Your task to perform on an android device: Add razer huntsman to the cart on costco Image 0: 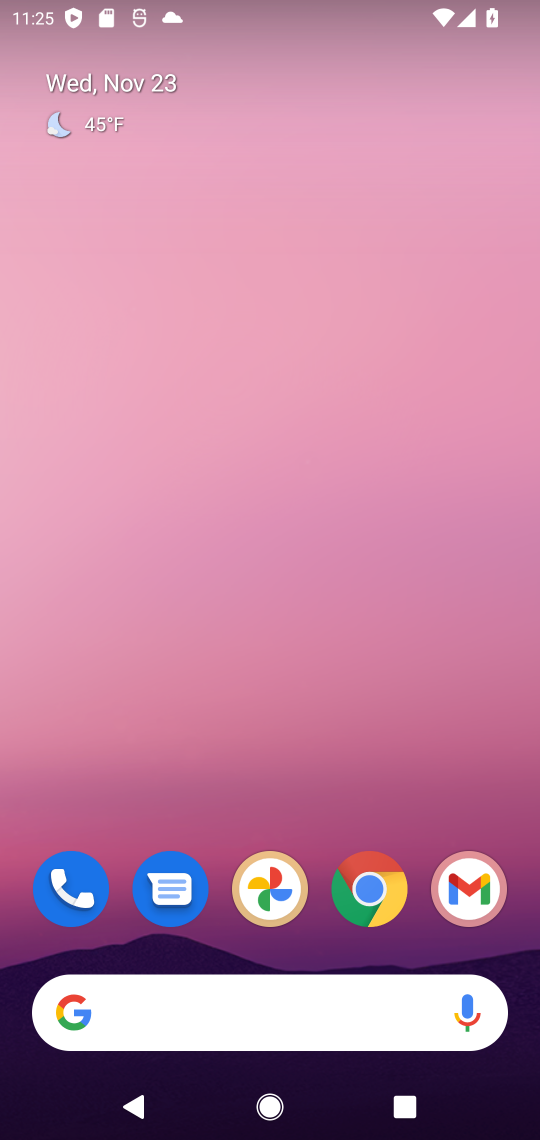
Step 0: click (368, 899)
Your task to perform on an android device: Add razer huntsman to the cart on costco Image 1: 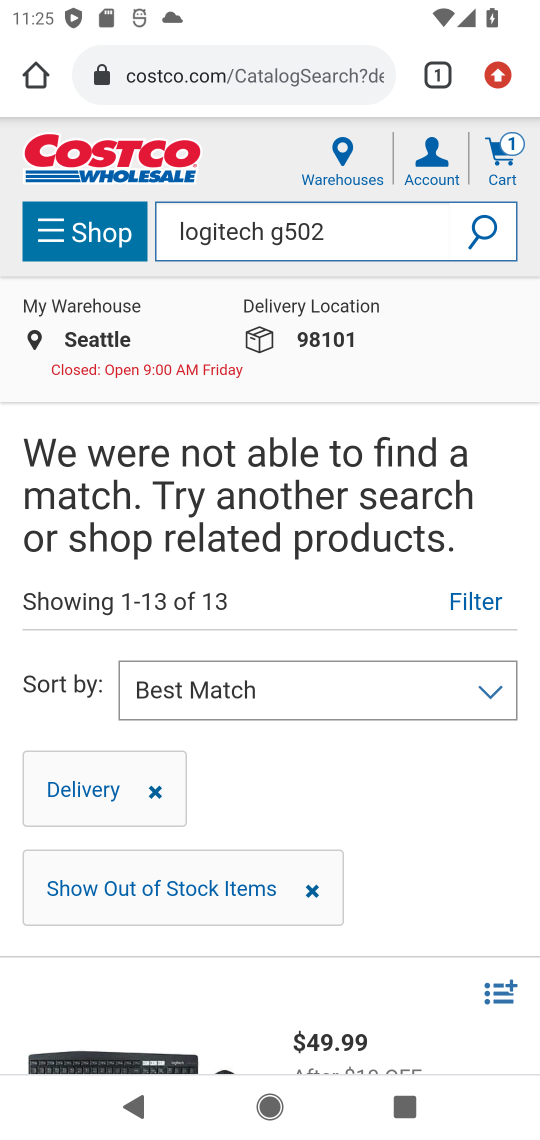
Step 1: click (346, 226)
Your task to perform on an android device: Add razer huntsman to the cart on costco Image 2: 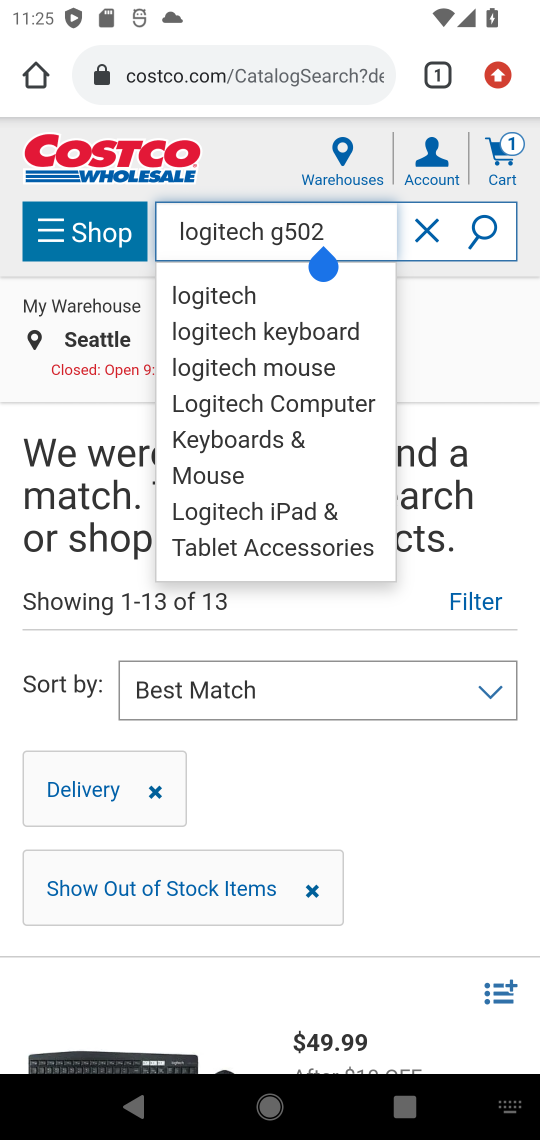
Step 2: click (431, 227)
Your task to perform on an android device: Add razer huntsman to the cart on costco Image 3: 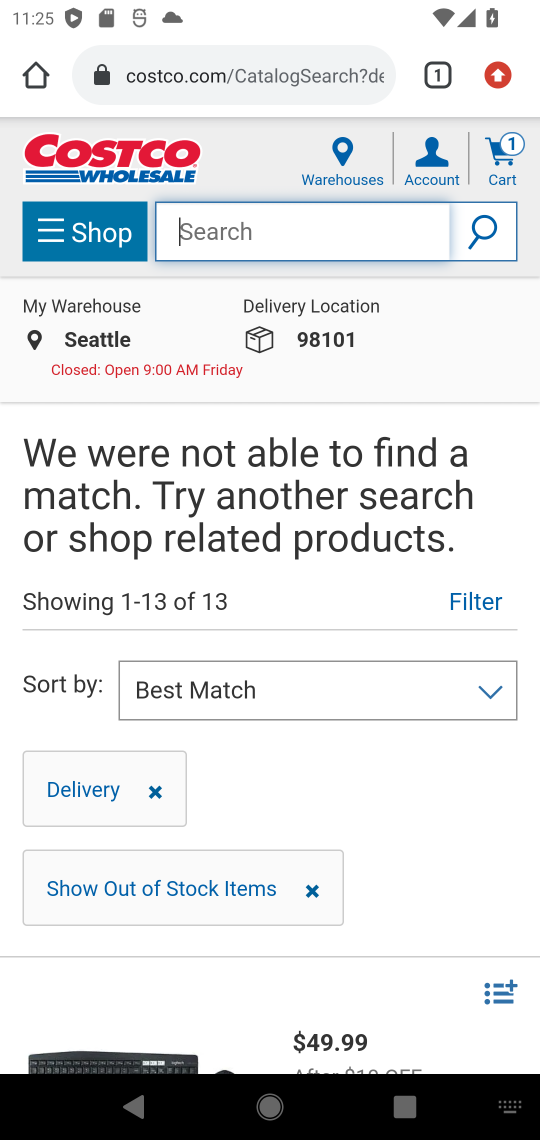
Step 3: type "razer huntsman"
Your task to perform on an android device: Add razer huntsman to the cart on costco Image 4: 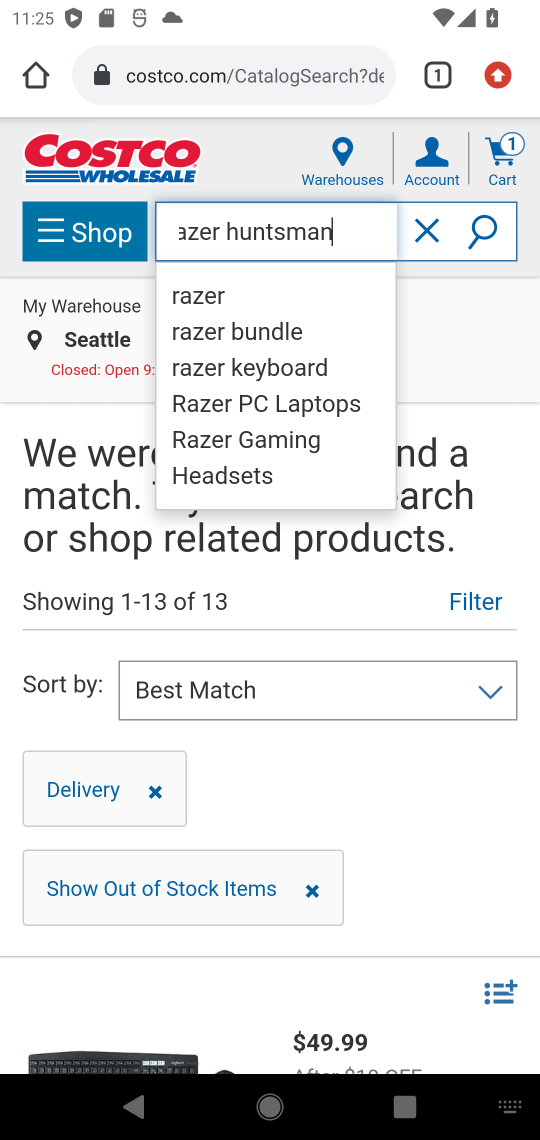
Step 4: click (482, 230)
Your task to perform on an android device: Add razer huntsman to the cart on costco Image 5: 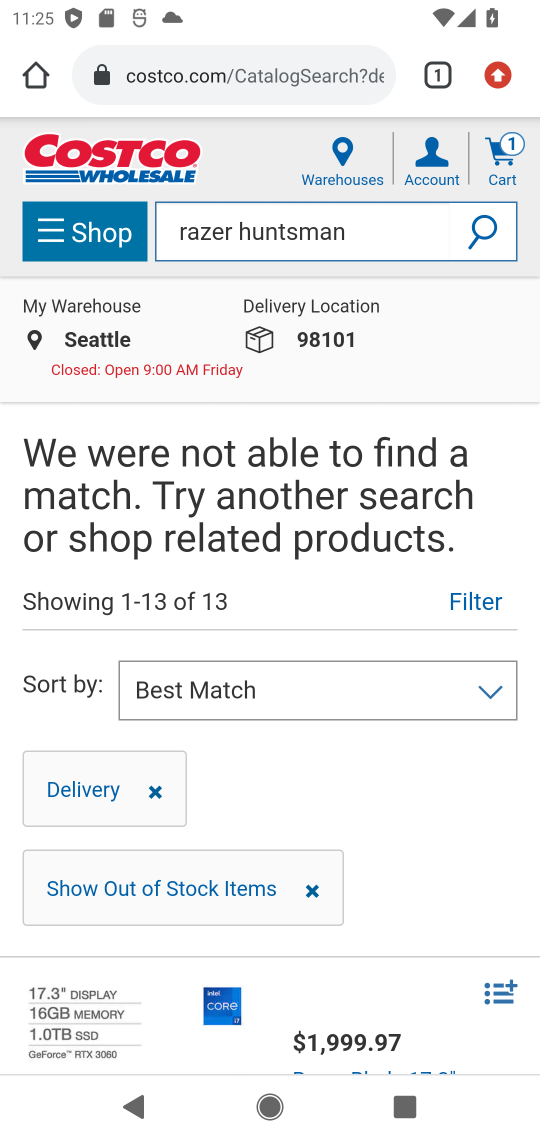
Step 5: click (483, 229)
Your task to perform on an android device: Add razer huntsman to the cart on costco Image 6: 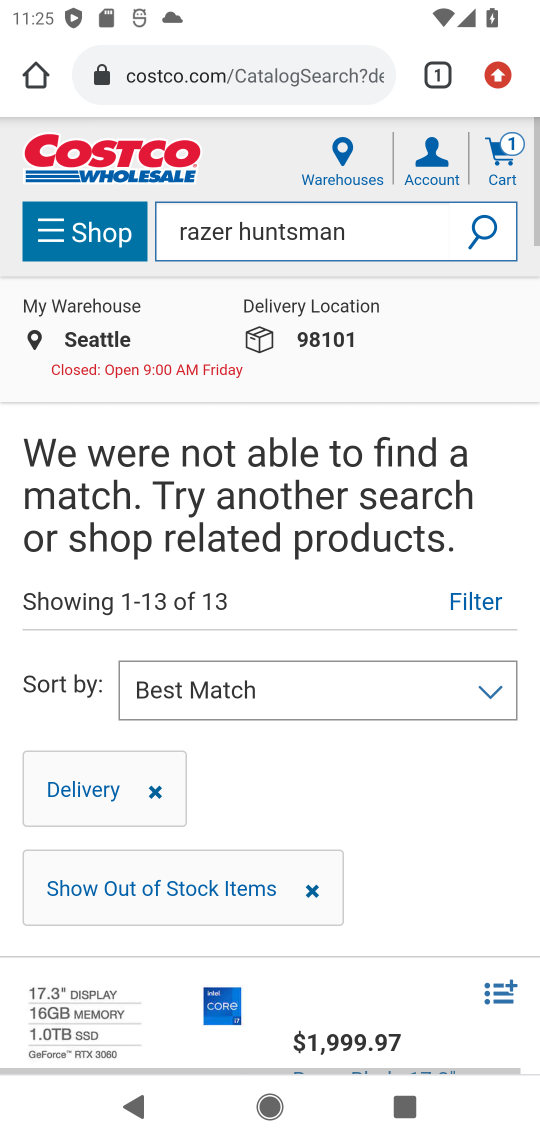
Step 6: task complete